Your task to perform on an android device: star an email in the gmail app Image 0: 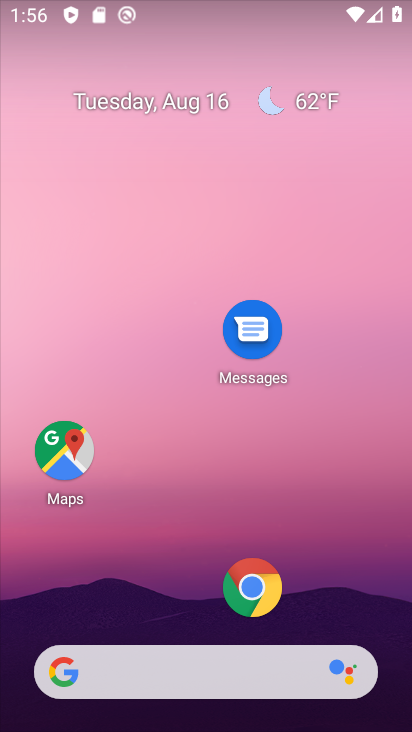
Step 0: drag from (184, 568) to (227, 145)
Your task to perform on an android device: star an email in the gmail app Image 1: 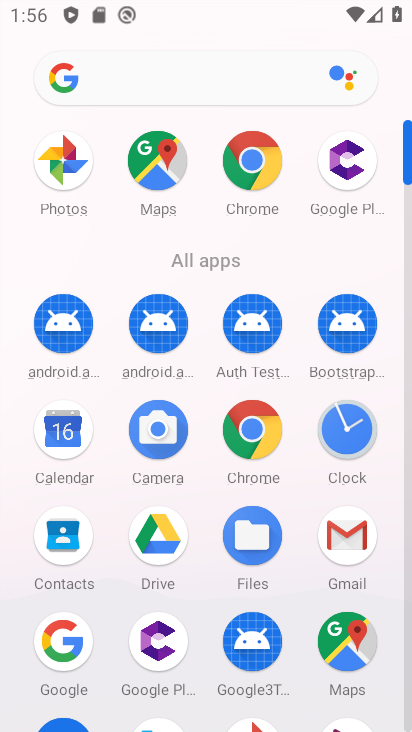
Step 1: click (349, 548)
Your task to perform on an android device: star an email in the gmail app Image 2: 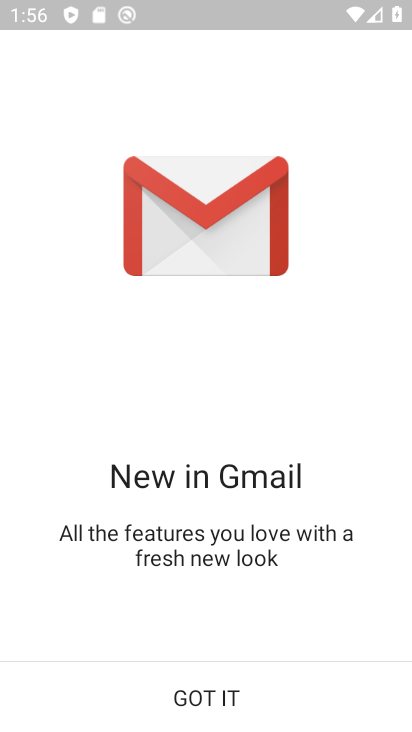
Step 2: task complete